Your task to perform on an android device: Open privacy settings Image 0: 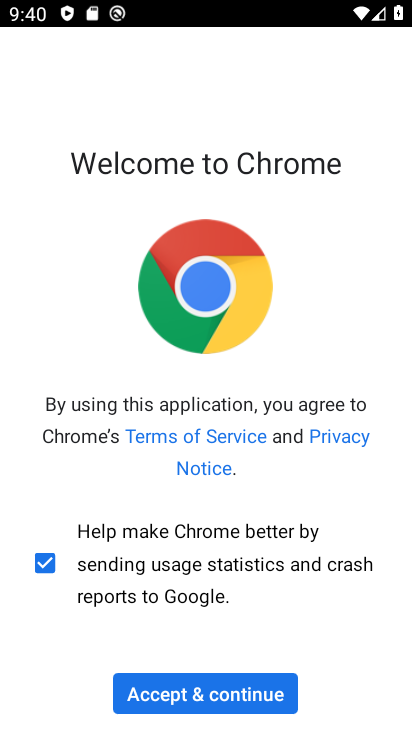
Step 0: click (244, 692)
Your task to perform on an android device: Open privacy settings Image 1: 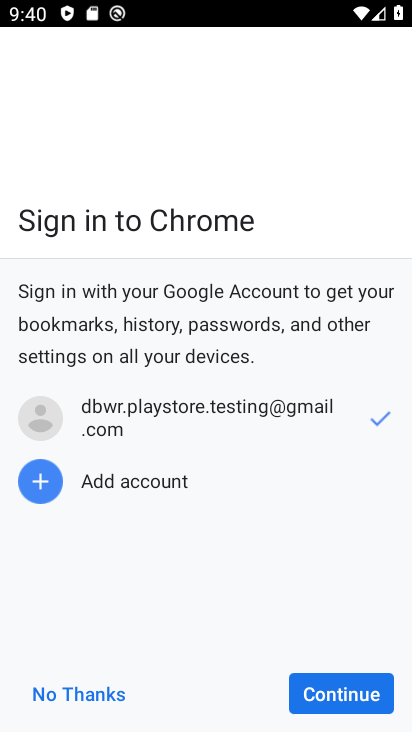
Step 1: click (345, 696)
Your task to perform on an android device: Open privacy settings Image 2: 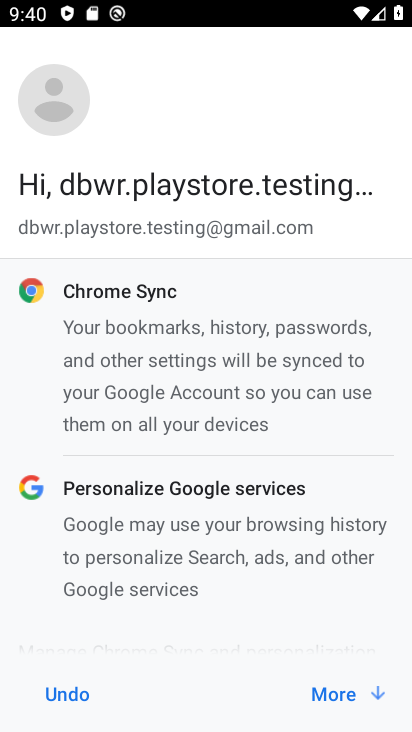
Step 2: click (345, 697)
Your task to perform on an android device: Open privacy settings Image 3: 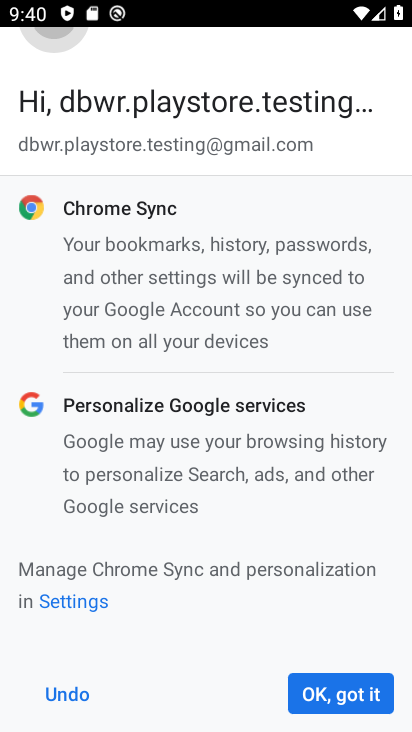
Step 3: click (345, 698)
Your task to perform on an android device: Open privacy settings Image 4: 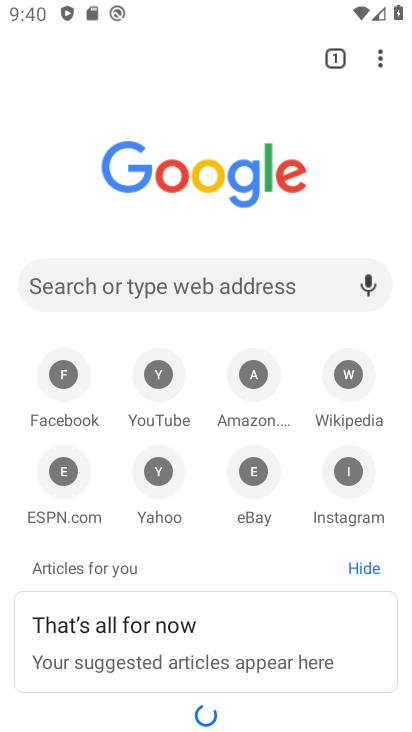
Step 4: drag from (395, 63) to (275, 485)
Your task to perform on an android device: Open privacy settings Image 5: 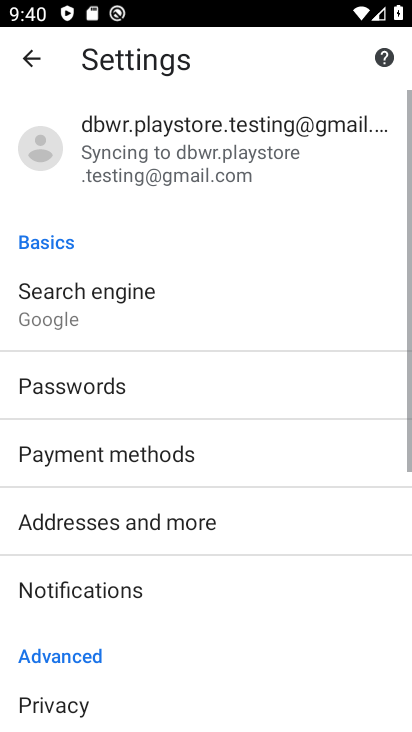
Step 5: drag from (228, 643) to (252, 405)
Your task to perform on an android device: Open privacy settings Image 6: 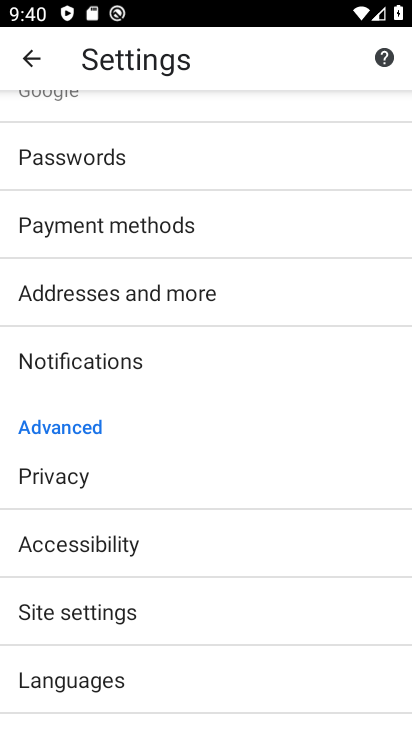
Step 6: click (133, 484)
Your task to perform on an android device: Open privacy settings Image 7: 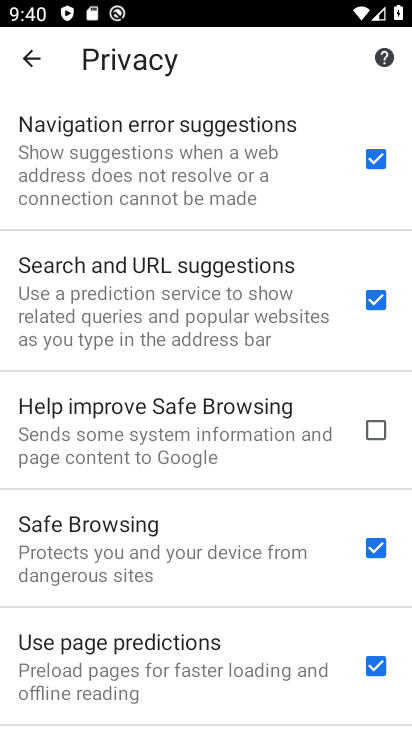
Step 7: task complete